Your task to perform on an android device: Open Youtube and go to the subscriptions tab Image 0: 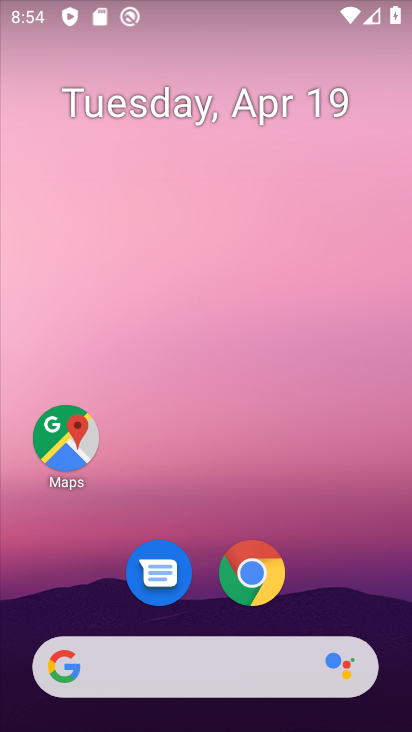
Step 0: drag from (208, 509) to (198, 39)
Your task to perform on an android device: Open Youtube and go to the subscriptions tab Image 1: 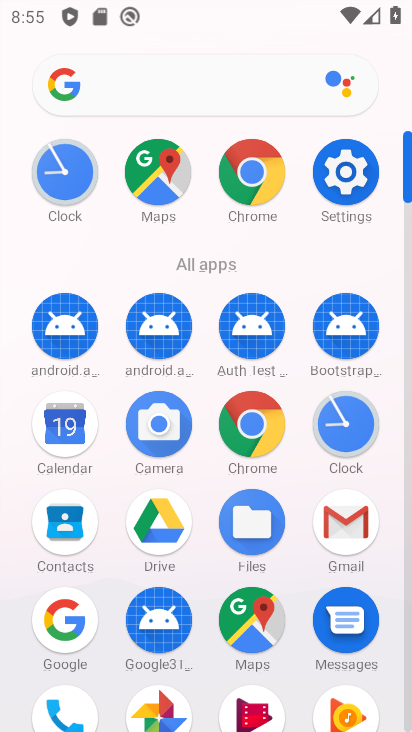
Step 1: drag from (198, 574) to (223, 159)
Your task to perform on an android device: Open Youtube and go to the subscriptions tab Image 2: 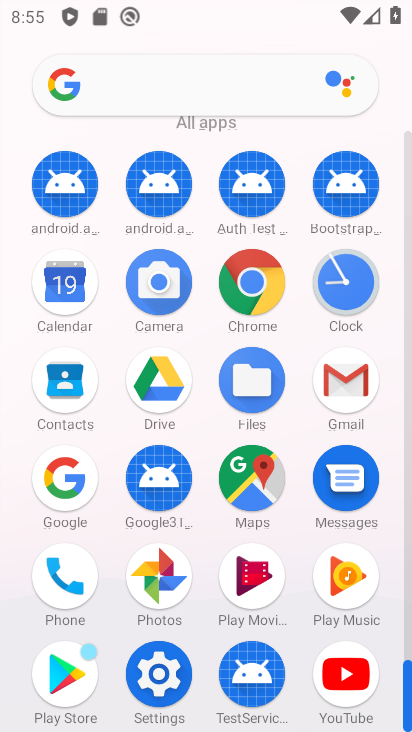
Step 2: click (346, 662)
Your task to perform on an android device: Open Youtube and go to the subscriptions tab Image 3: 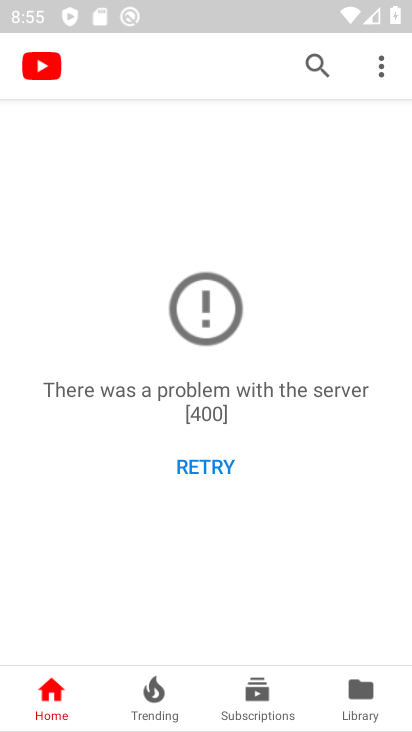
Step 3: click (260, 693)
Your task to perform on an android device: Open Youtube and go to the subscriptions tab Image 4: 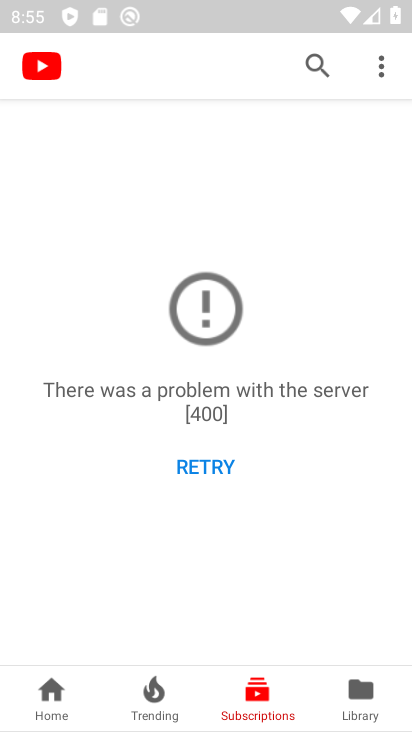
Step 4: task complete